Your task to perform on an android device: turn off priority inbox in the gmail app Image 0: 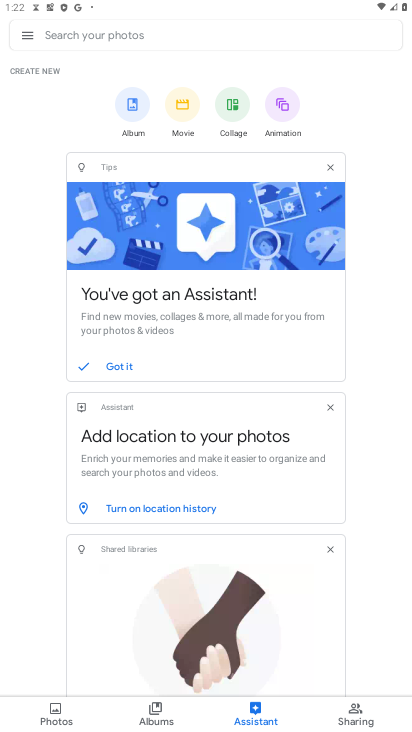
Step 0: click (150, 664)
Your task to perform on an android device: turn off priority inbox in the gmail app Image 1: 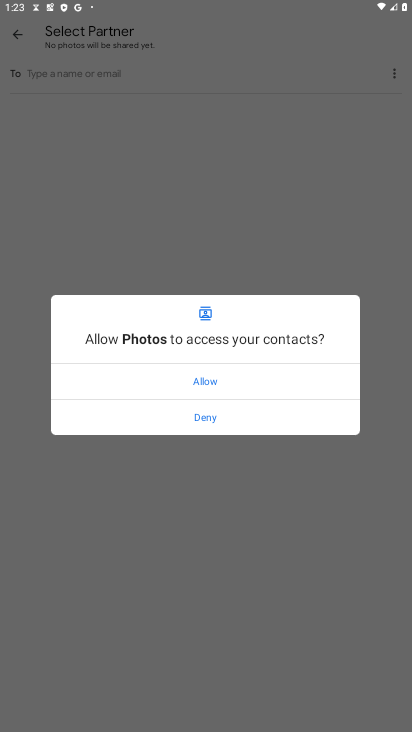
Step 1: press home button
Your task to perform on an android device: turn off priority inbox in the gmail app Image 2: 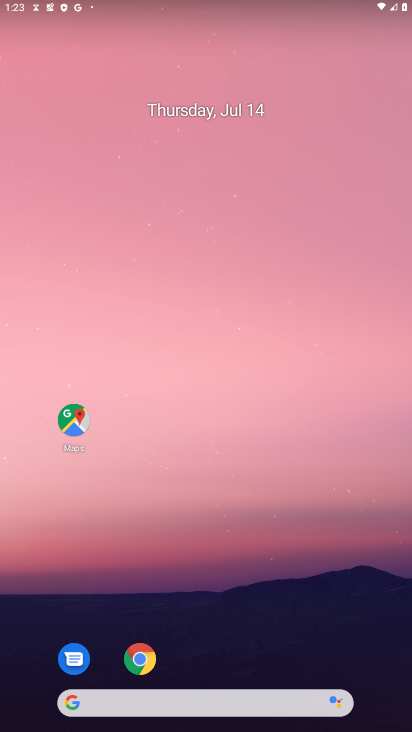
Step 2: drag from (104, 573) to (336, 3)
Your task to perform on an android device: turn off priority inbox in the gmail app Image 3: 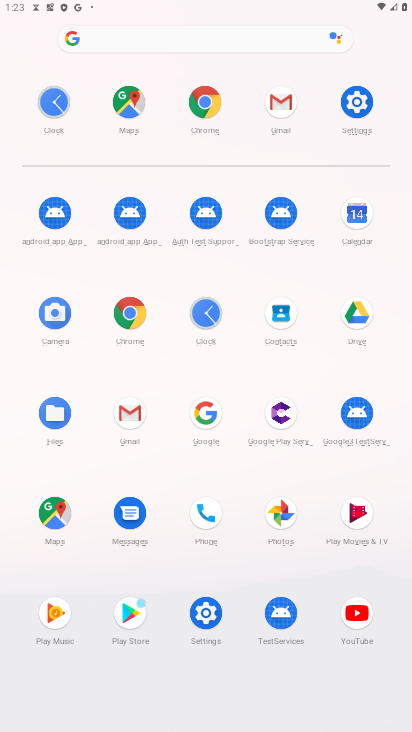
Step 3: click (139, 400)
Your task to perform on an android device: turn off priority inbox in the gmail app Image 4: 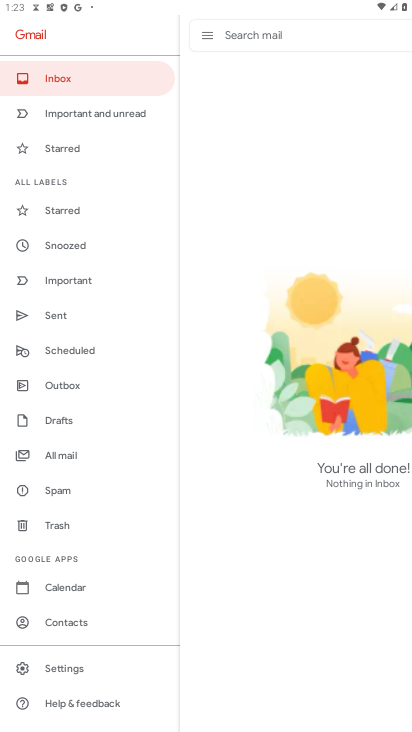
Step 4: click (61, 675)
Your task to perform on an android device: turn off priority inbox in the gmail app Image 5: 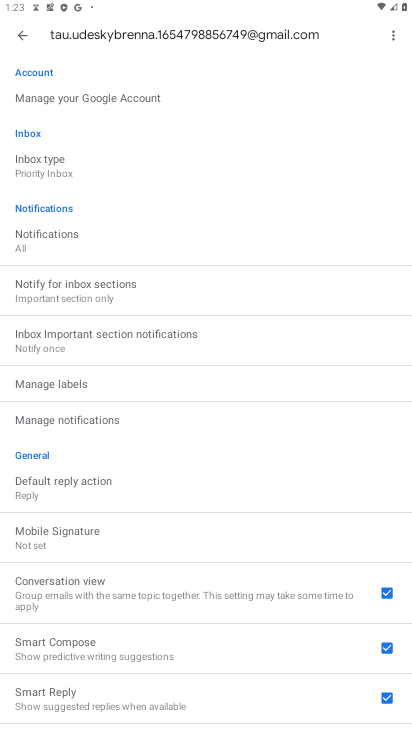
Step 5: click (64, 162)
Your task to perform on an android device: turn off priority inbox in the gmail app Image 6: 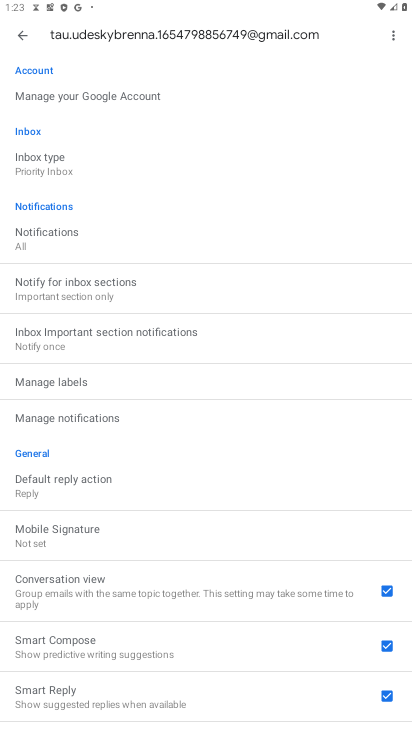
Step 6: click (51, 164)
Your task to perform on an android device: turn off priority inbox in the gmail app Image 7: 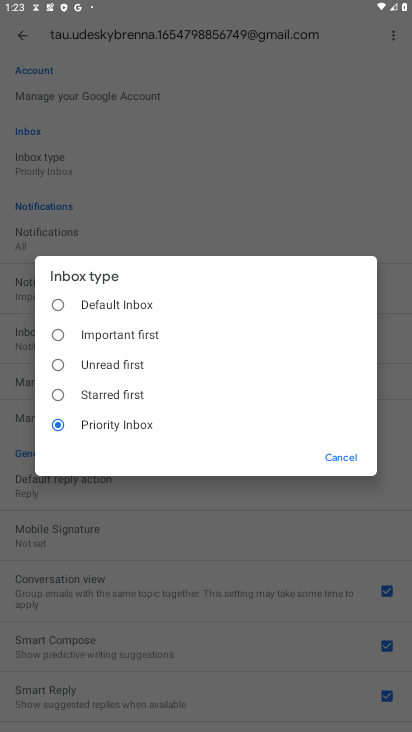
Step 7: click (337, 452)
Your task to perform on an android device: turn off priority inbox in the gmail app Image 8: 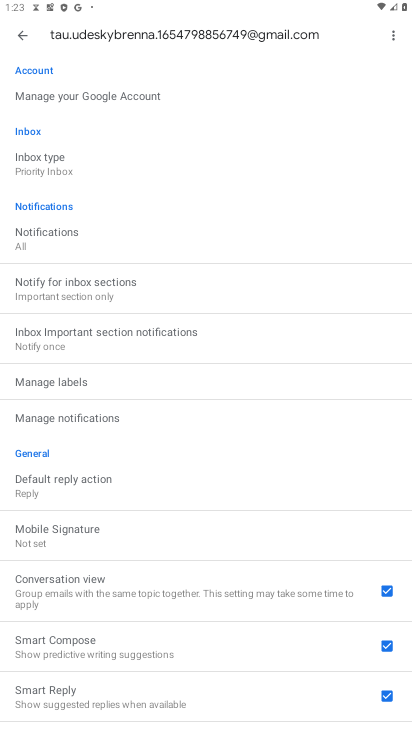
Step 8: task complete